Your task to perform on an android device: set an alarm Image 0: 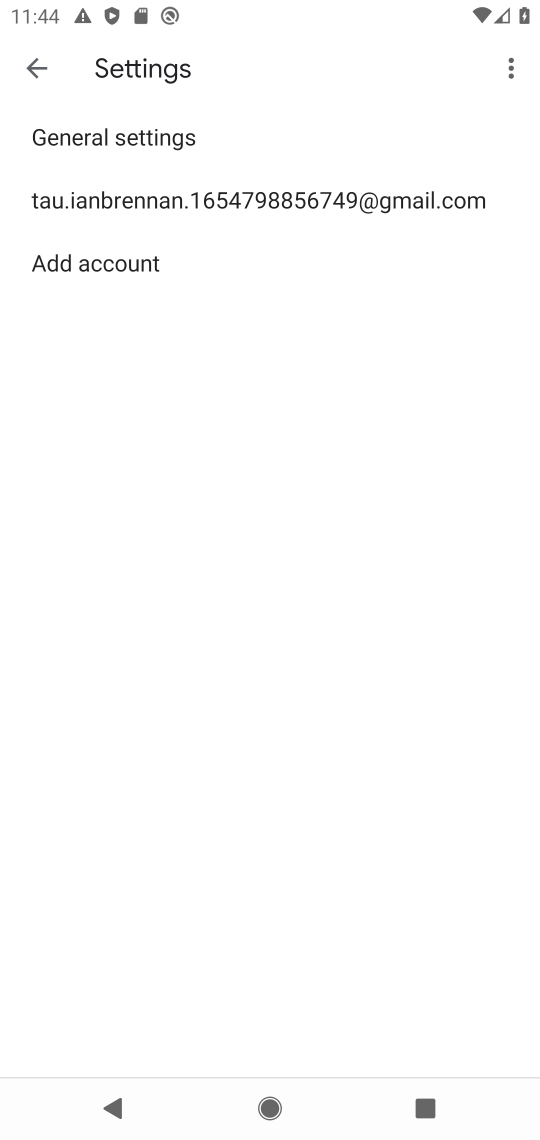
Step 0: press home button
Your task to perform on an android device: set an alarm Image 1: 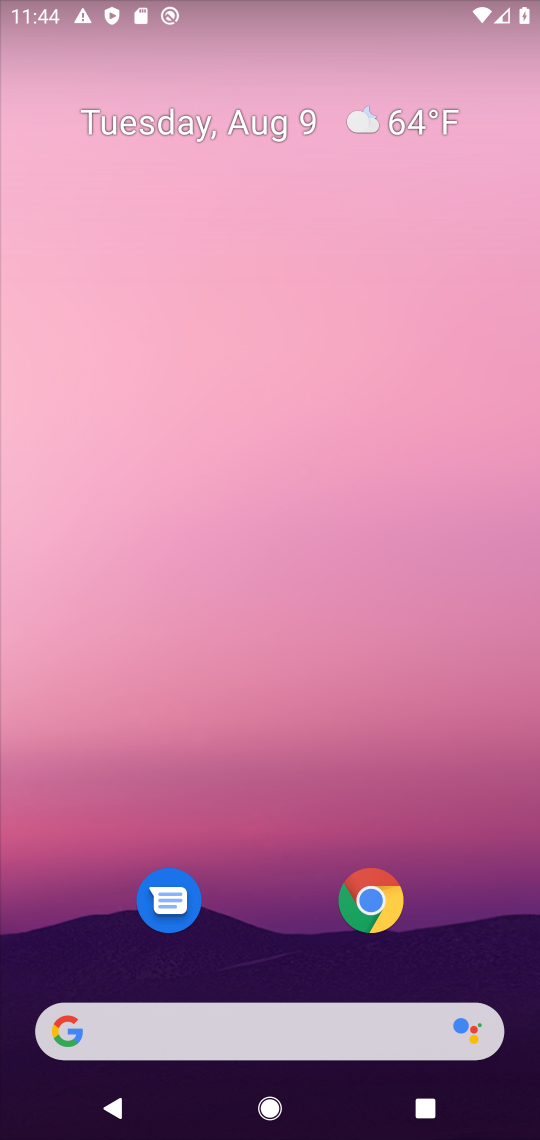
Step 1: drag from (263, 895) to (280, 60)
Your task to perform on an android device: set an alarm Image 2: 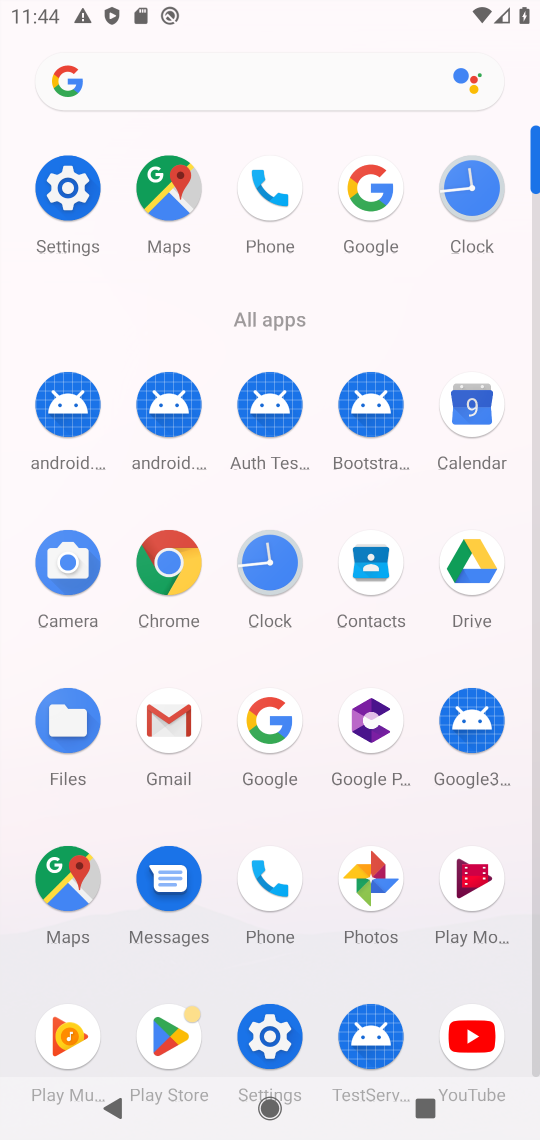
Step 2: click (471, 187)
Your task to perform on an android device: set an alarm Image 3: 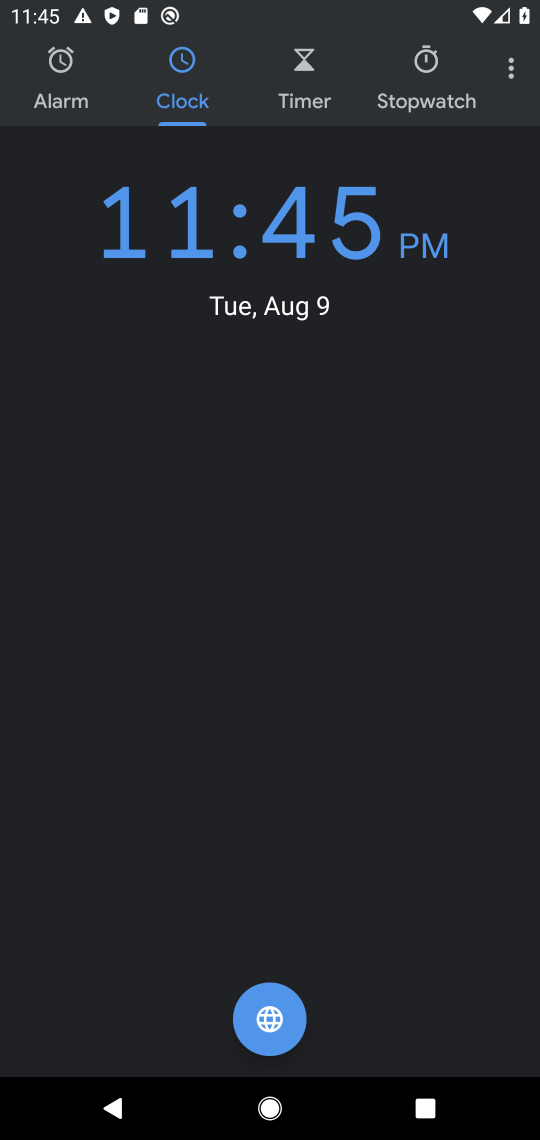
Step 3: click (74, 80)
Your task to perform on an android device: set an alarm Image 4: 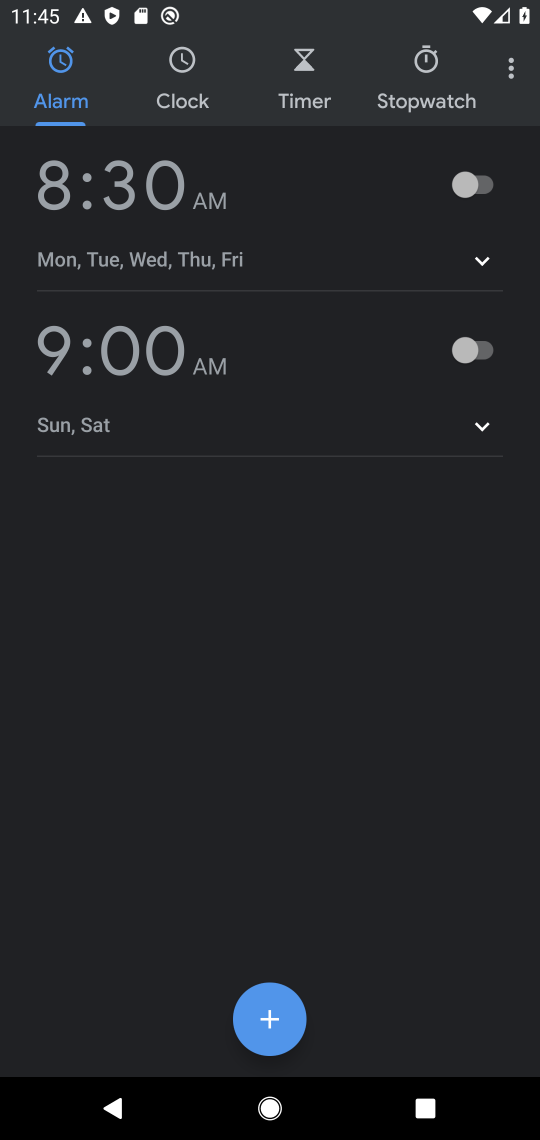
Step 4: click (265, 1018)
Your task to perform on an android device: set an alarm Image 5: 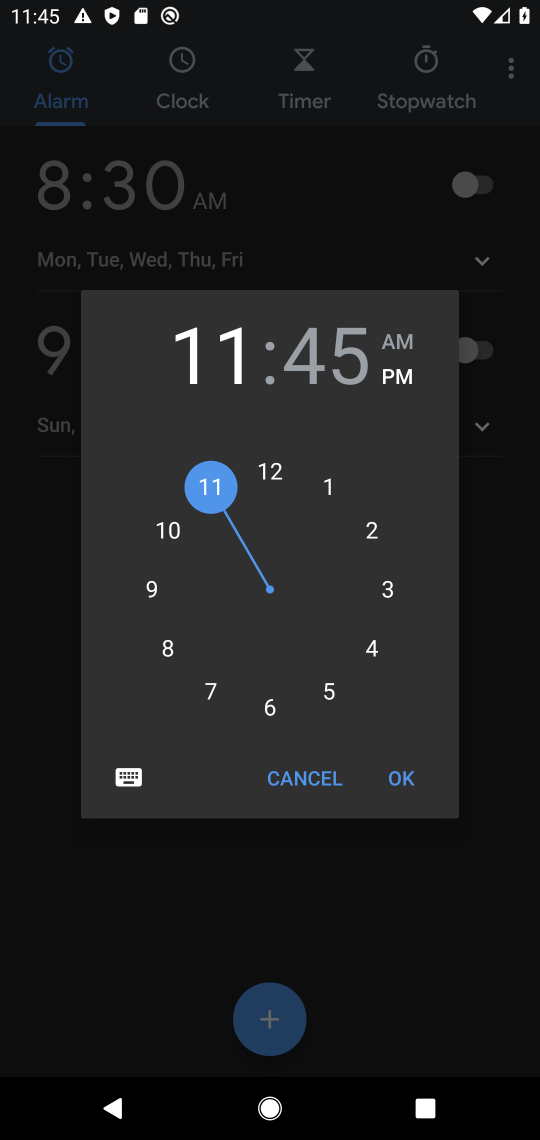
Step 5: click (336, 366)
Your task to perform on an android device: set an alarm Image 6: 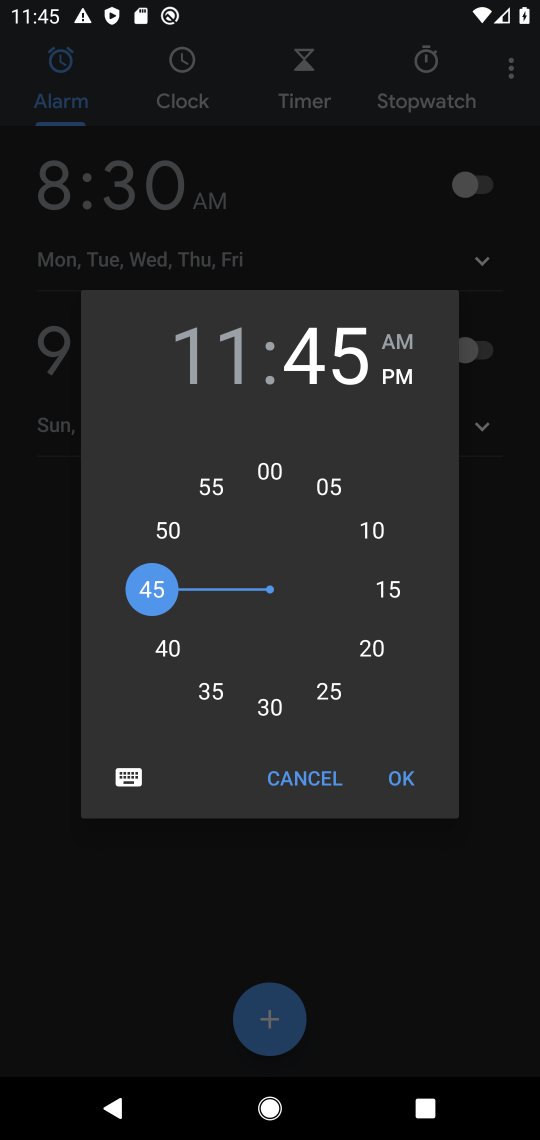
Step 6: click (272, 458)
Your task to perform on an android device: set an alarm Image 7: 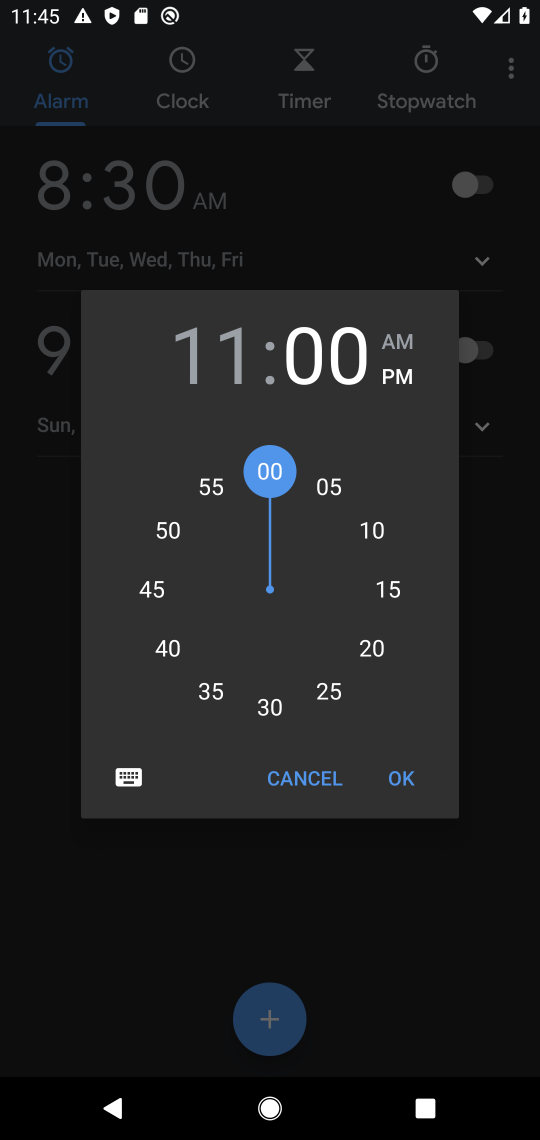
Step 7: click (399, 778)
Your task to perform on an android device: set an alarm Image 8: 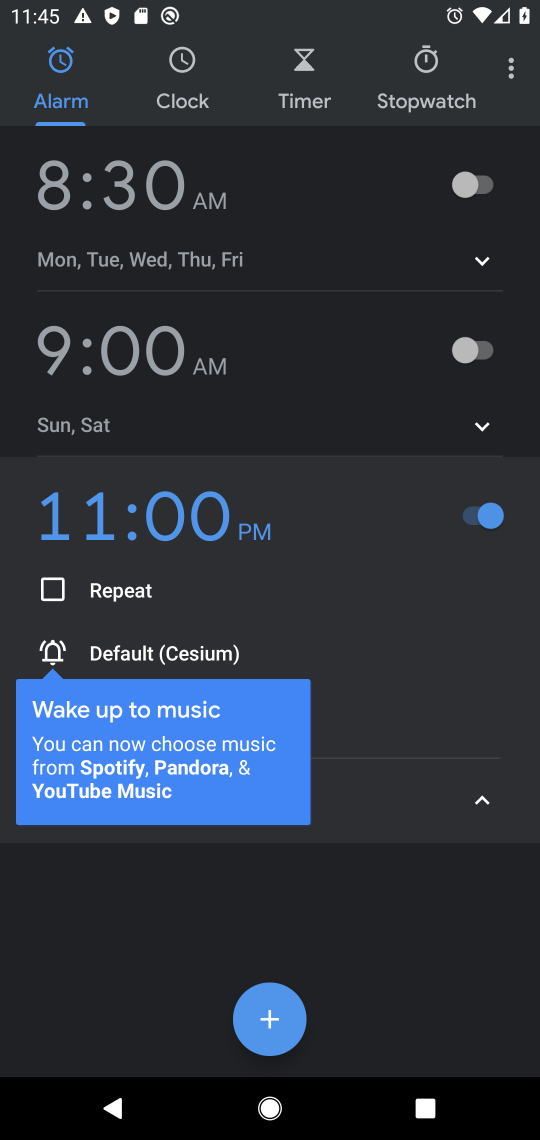
Step 8: task complete